Your task to perform on an android device: Open the calendar and show me this week's events? Image 0: 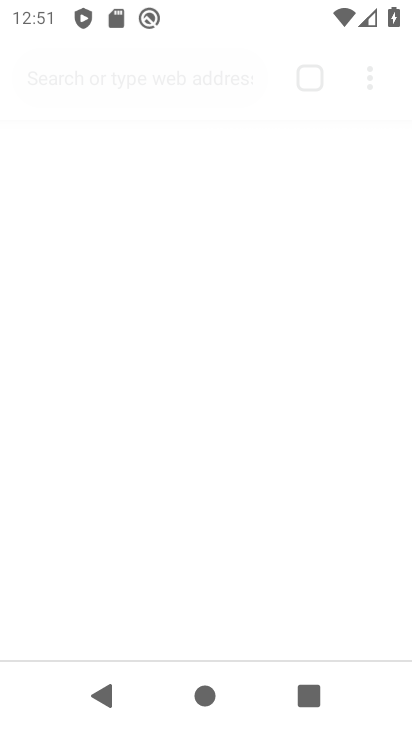
Step 0: drag from (240, 705) to (319, 212)
Your task to perform on an android device: Open the calendar and show me this week's events? Image 1: 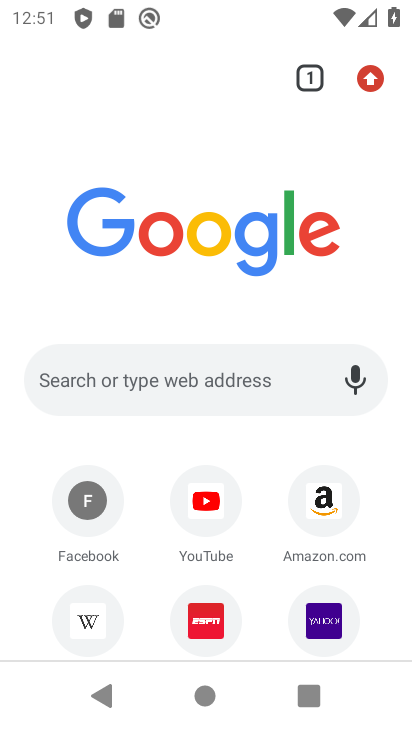
Step 1: press home button
Your task to perform on an android device: Open the calendar and show me this week's events? Image 2: 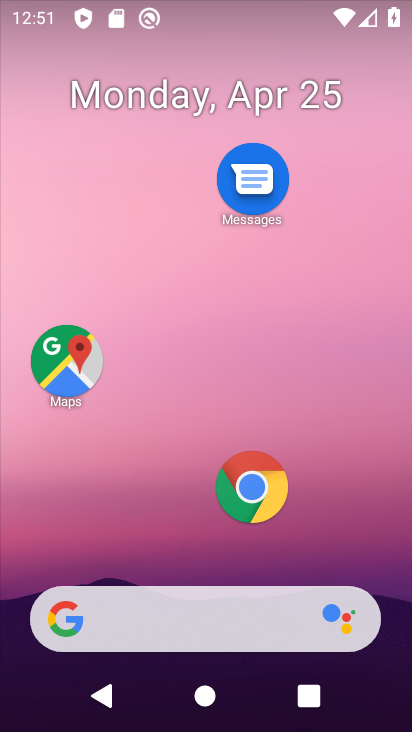
Step 2: drag from (356, 474) to (327, 107)
Your task to perform on an android device: Open the calendar and show me this week's events? Image 3: 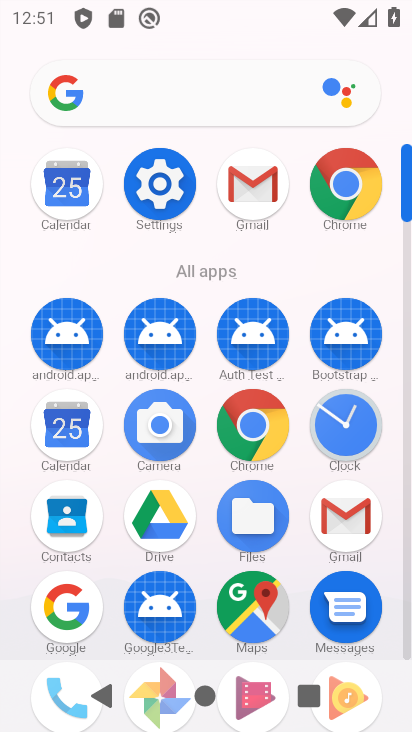
Step 3: click (57, 432)
Your task to perform on an android device: Open the calendar and show me this week's events? Image 4: 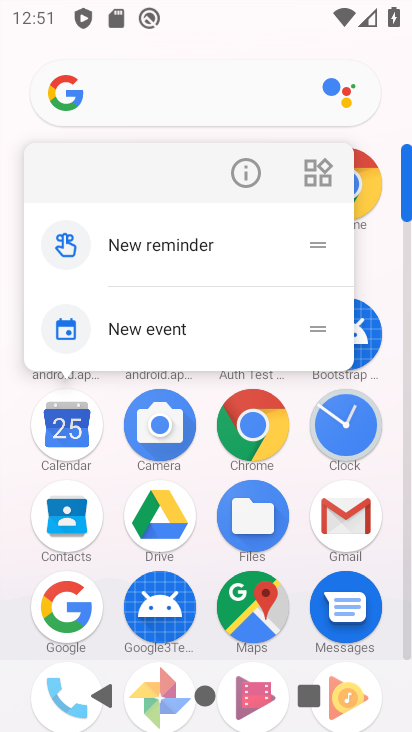
Step 4: click (82, 426)
Your task to perform on an android device: Open the calendar and show me this week's events? Image 5: 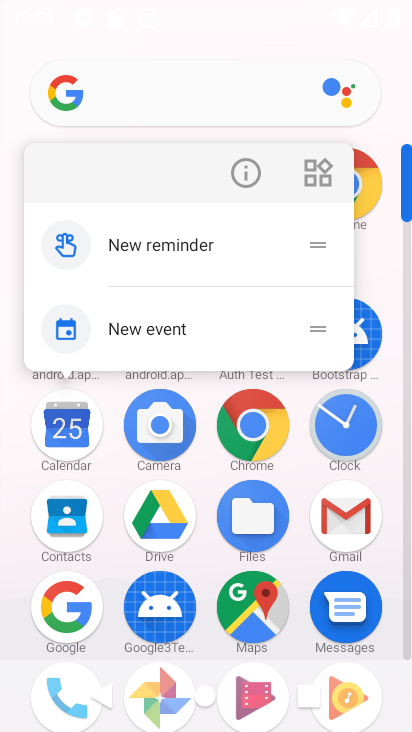
Step 5: click (79, 423)
Your task to perform on an android device: Open the calendar and show me this week's events? Image 6: 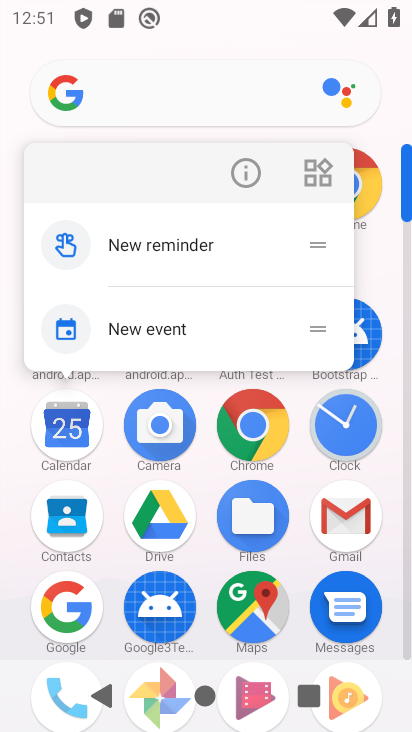
Step 6: click (85, 426)
Your task to perform on an android device: Open the calendar and show me this week's events? Image 7: 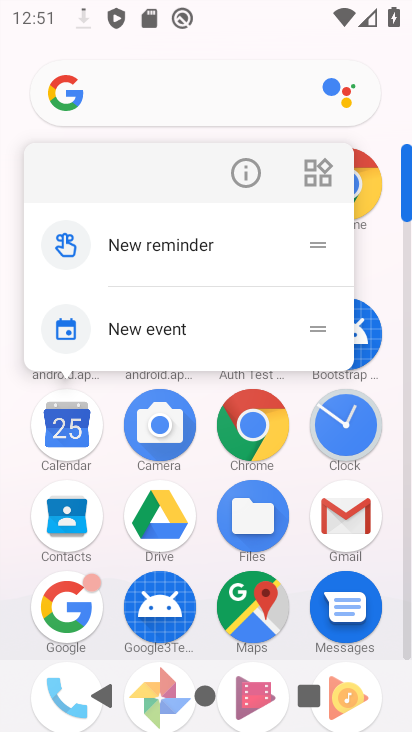
Step 7: click (68, 441)
Your task to perform on an android device: Open the calendar and show me this week's events? Image 8: 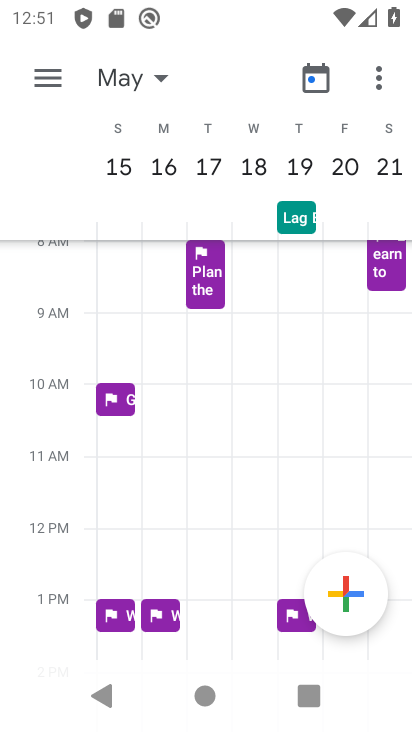
Step 8: click (153, 77)
Your task to perform on an android device: Open the calendar and show me this week's events? Image 9: 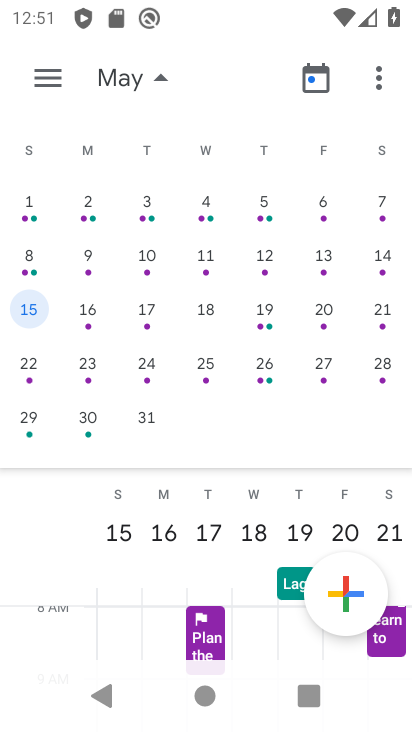
Step 9: drag from (123, 323) to (388, 334)
Your task to perform on an android device: Open the calendar and show me this week's events? Image 10: 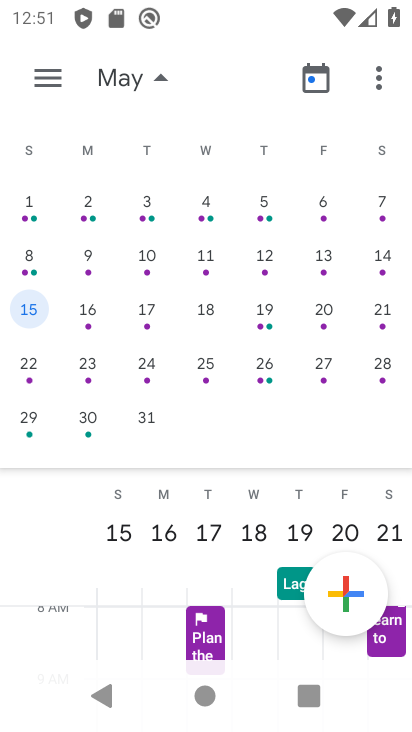
Step 10: drag from (190, 327) to (398, 308)
Your task to perform on an android device: Open the calendar and show me this week's events? Image 11: 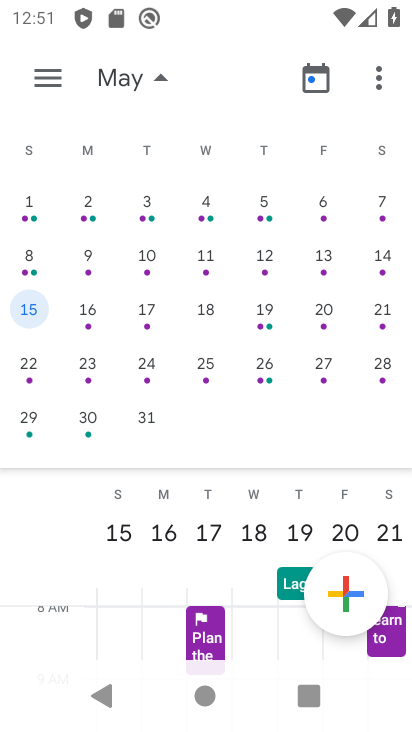
Step 11: drag from (17, 320) to (408, 326)
Your task to perform on an android device: Open the calendar and show me this week's events? Image 12: 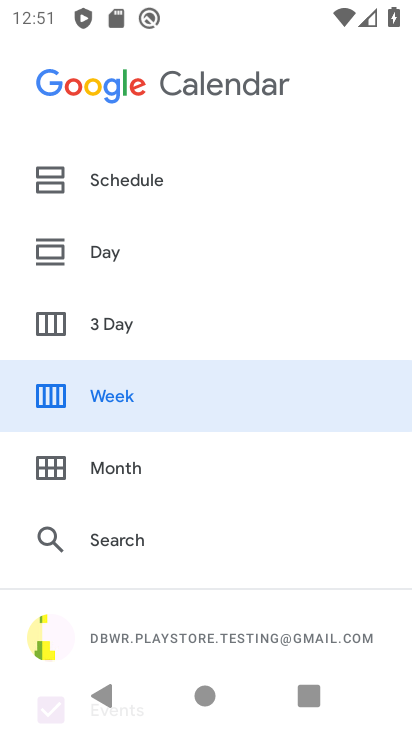
Step 12: drag from (393, 345) to (3, 383)
Your task to perform on an android device: Open the calendar and show me this week's events? Image 13: 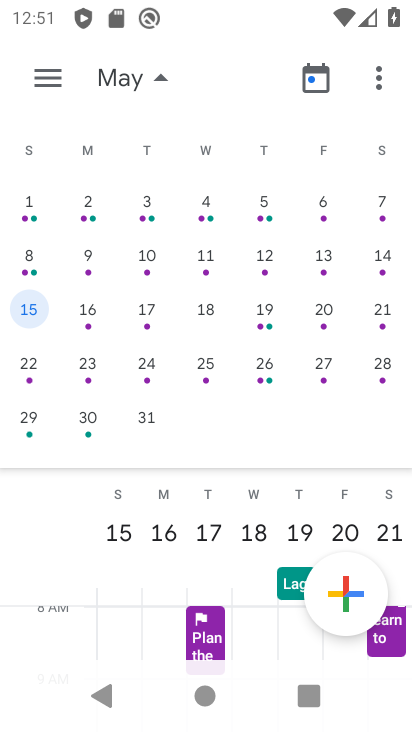
Step 13: drag from (54, 339) to (408, 408)
Your task to perform on an android device: Open the calendar and show me this week's events? Image 14: 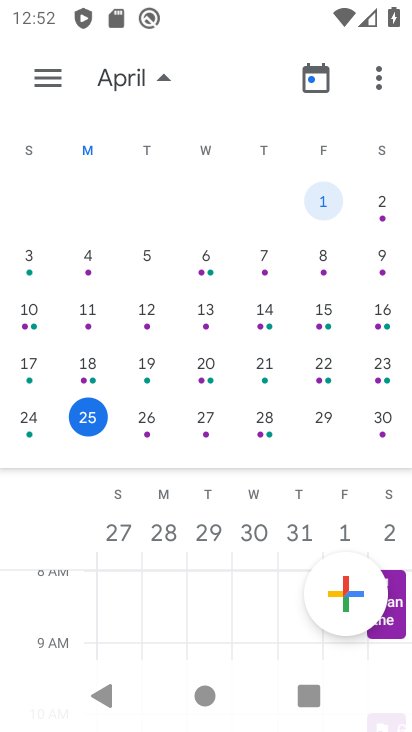
Step 14: click (147, 413)
Your task to perform on an android device: Open the calendar and show me this week's events? Image 15: 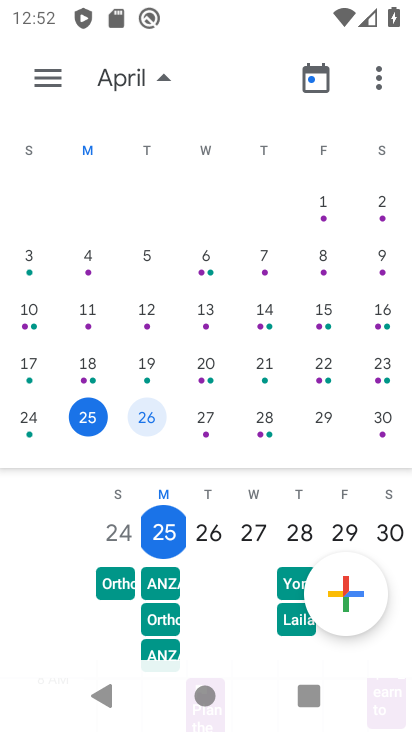
Step 15: click (57, 83)
Your task to perform on an android device: Open the calendar and show me this week's events? Image 16: 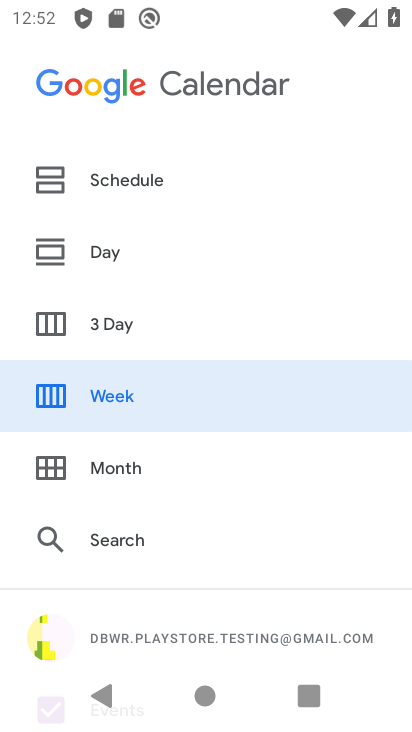
Step 16: click (118, 387)
Your task to perform on an android device: Open the calendar and show me this week's events? Image 17: 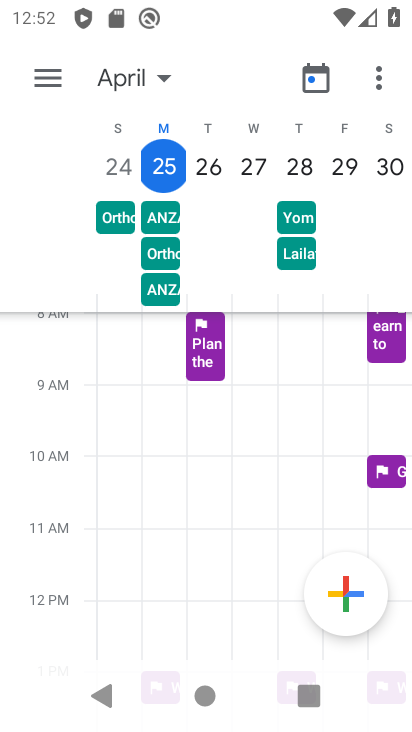
Step 17: task complete